Your task to perform on an android device: Open Google Image 0: 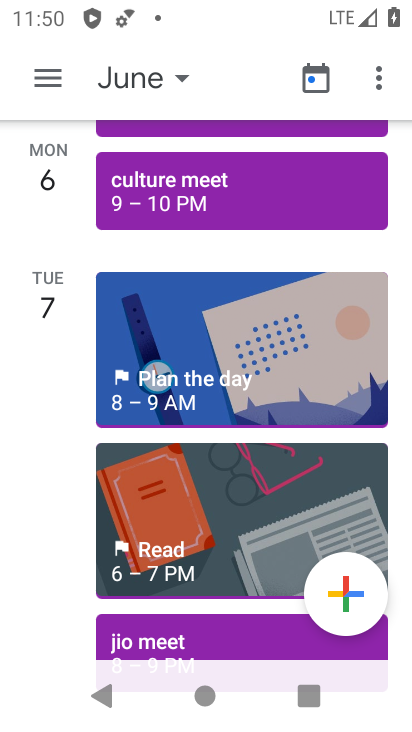
Step 0: press home button
Your task to perform on an android device: Open Google Image 1: 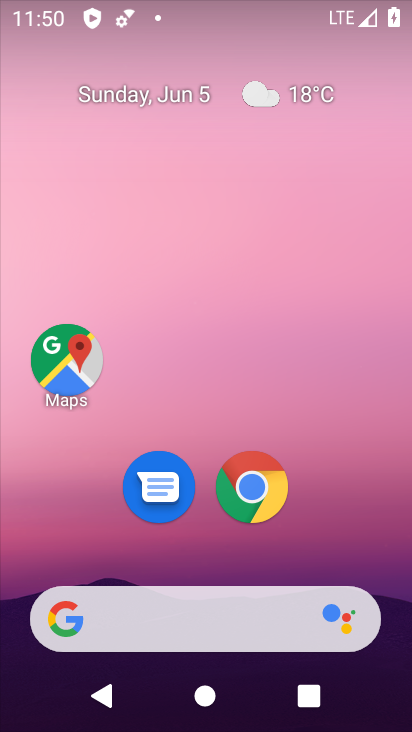
Step 1: drag from (344, 538) to (342, 72)
Your task to perform on an android device: Open Google Image 2: 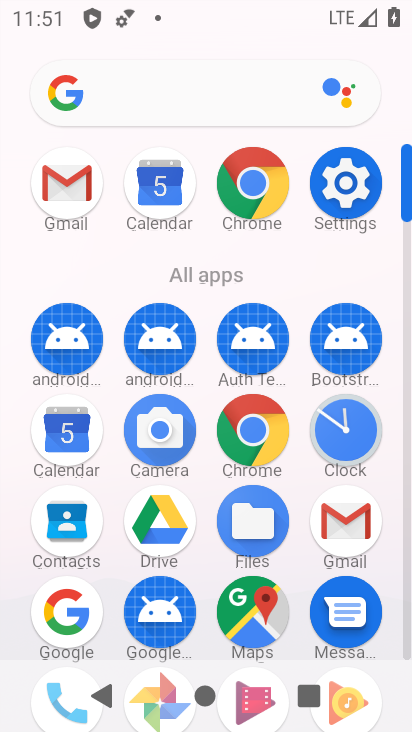
Step 2: click (66, 609)
Your task to perform on an android device: Open Google Image 3: 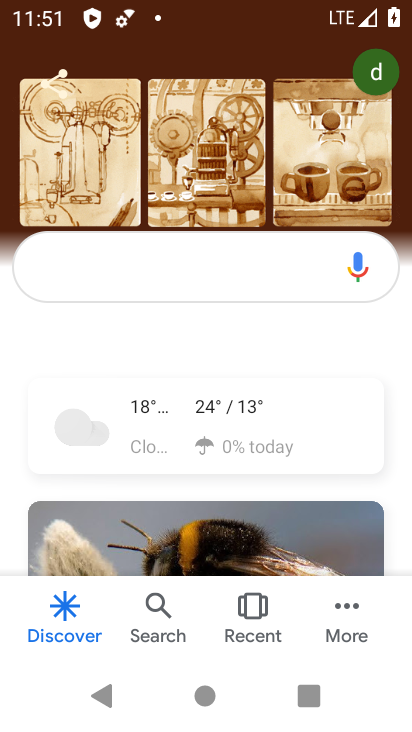
Step 3: task complete